Your task to perform on an android device: check battery use Image 0: 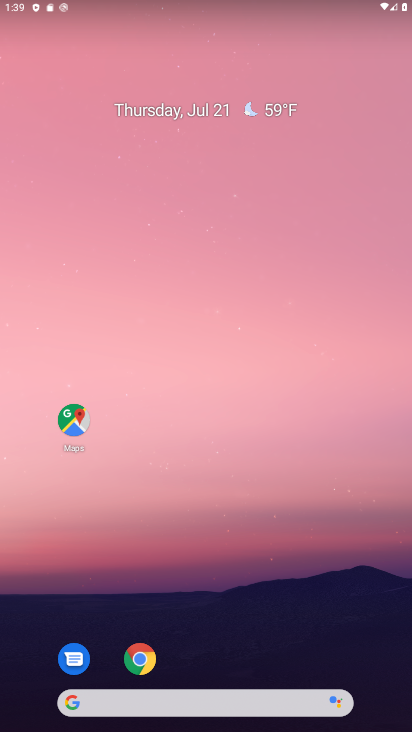
Step 0: drag from (200, 689) to (268, 13)
Your task to perform on an android device: check battery use Image 1: 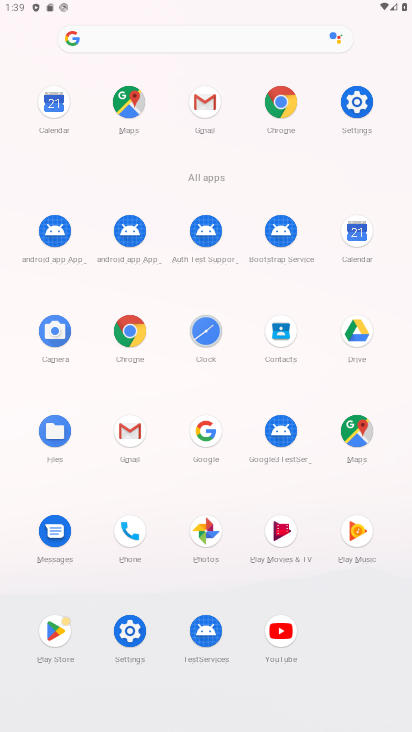
Step 1: click (142, 631)
Your task to perform on an android device: check battery use Image 2: 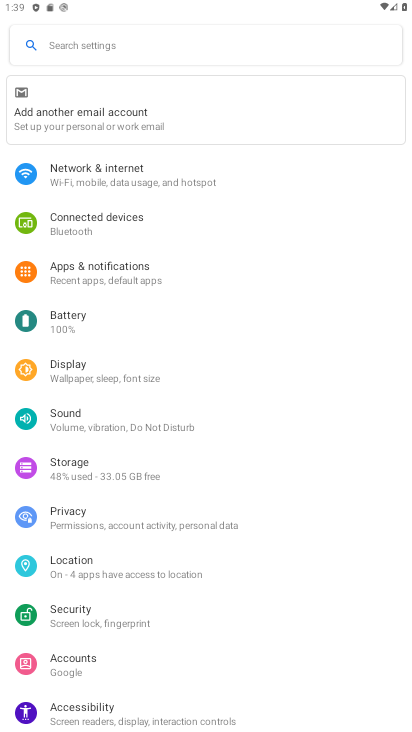
Step 2: click (68, 328)
Your task to perform on an android device: check battery use Image 3: 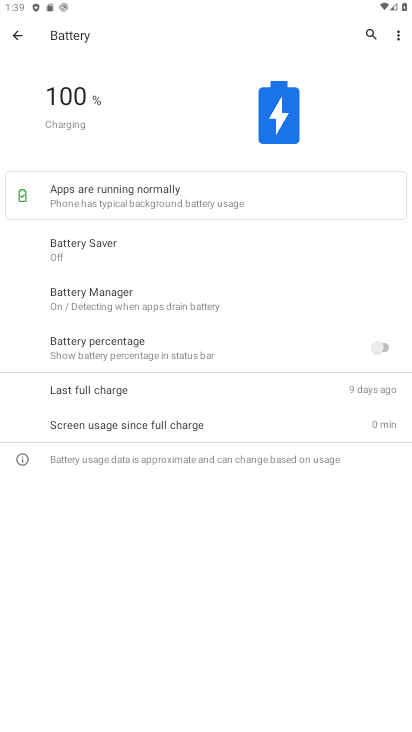
Step 3: click (403, 34)
Your task to perform on an android device: check battery use Image 4: 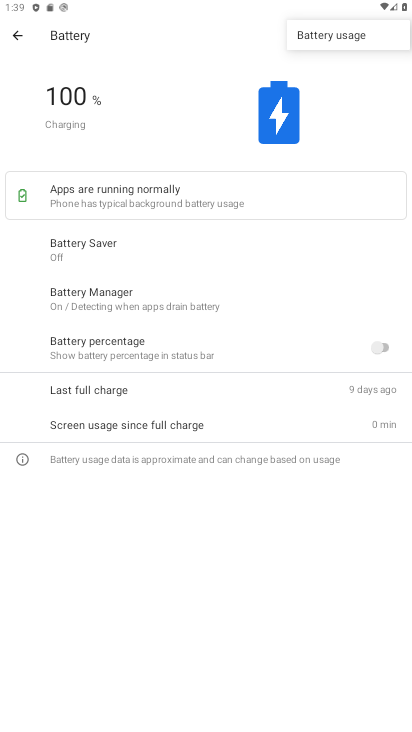
Step 4: click (351, 41)
Your task to perform on an android device: check battery use Image 5: 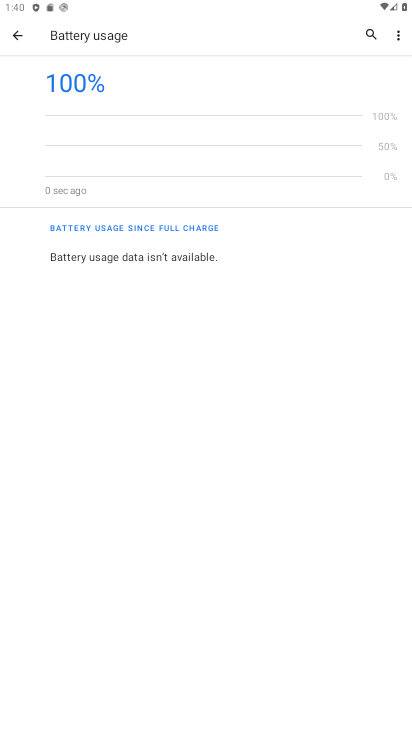
Step 5: task complete